Your task to perform on an android device: Go to Yahoo.com Image 0: 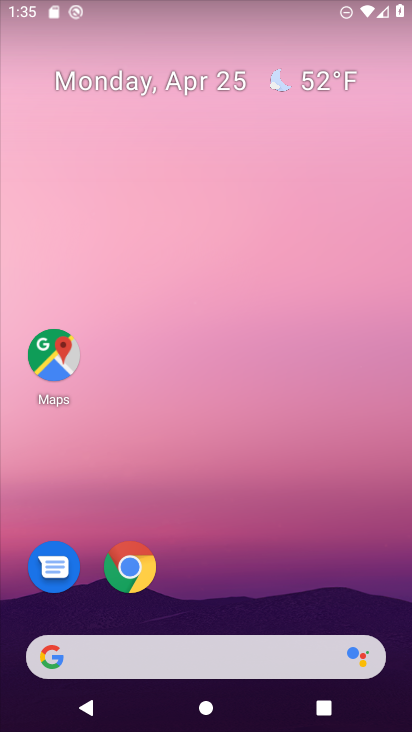
Step 0: click (272, 657)
Your task to perform on an android device: Go to Yahoo.com Image 1: 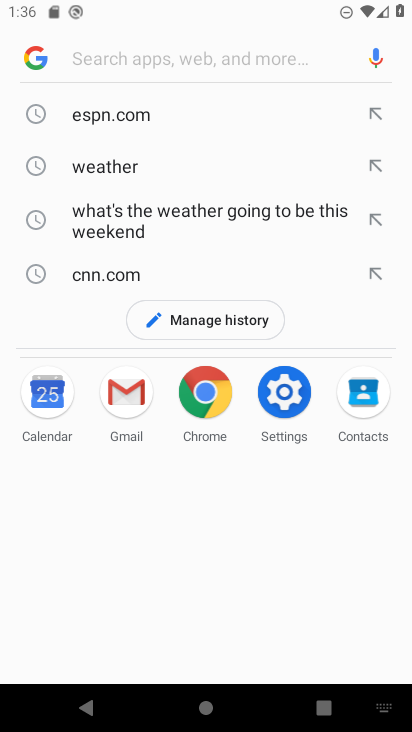
Step 1: type "yahoo.com"
Your task to perform on an android device: Go to Yahoo.com Image 2: 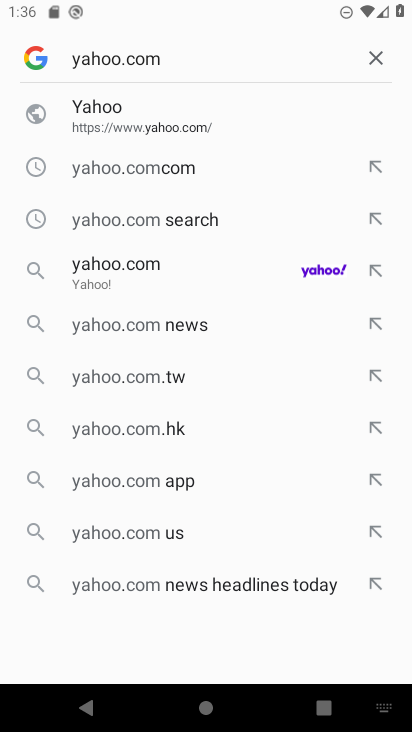
Step 2: click (298, 275)
Your task to perform on an android device: Go to Yahoo.com Image 3: 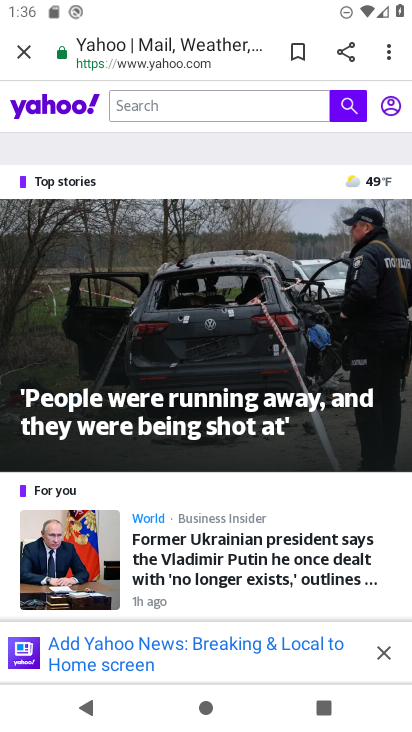
Step 3: task complete